Your task to perform on an android device: open sync settings in chrome Image 0: 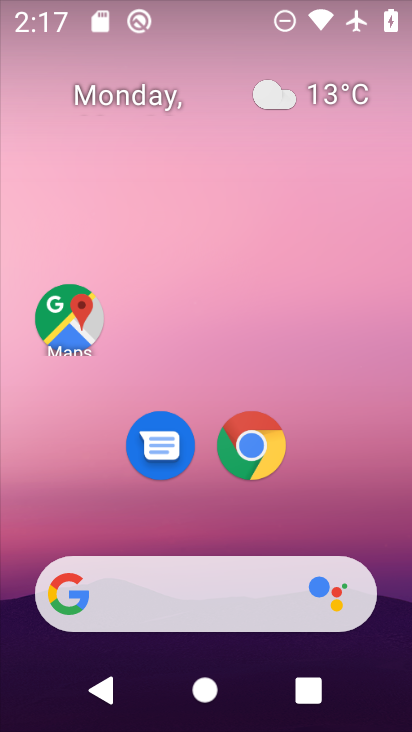
Step 0: drag from (389, 624) to (322, 38)
Your task to perform on an android device: open sync settings in chrome Image 1: 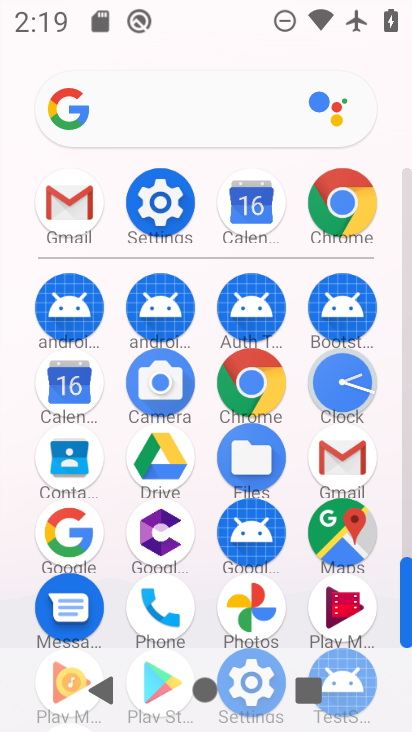
Step 1: click (270, 357)
Your task to perform on an android device: open sync settings in chrome Image 2: 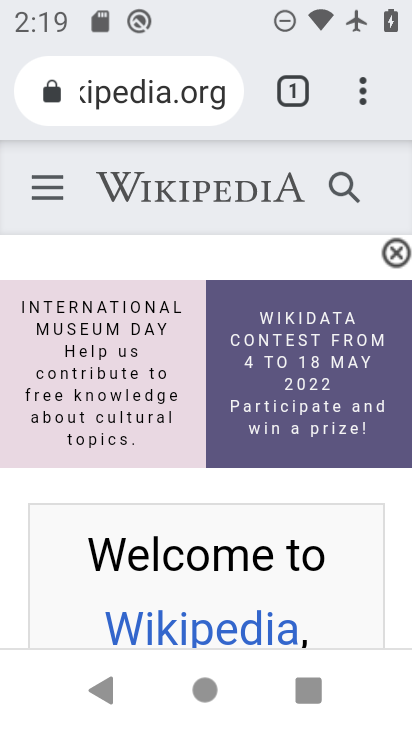
Step 2: press back button
Your task to perform on an android device: open sync settings in chrome Image 3: 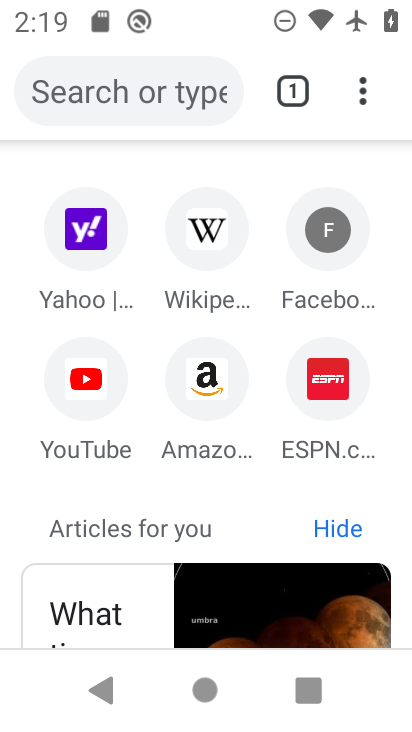
Step 3: click (363, 85)
Your task to perform on an android device: open sync settings in chrome Image 4: 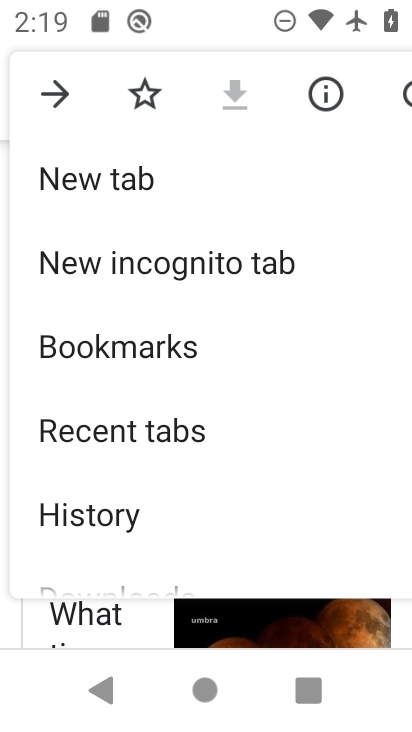
Step 4: drag from (153, 569) to (254, 134)
Your task to perform on an android device: open sync settings in chrome Image 5: 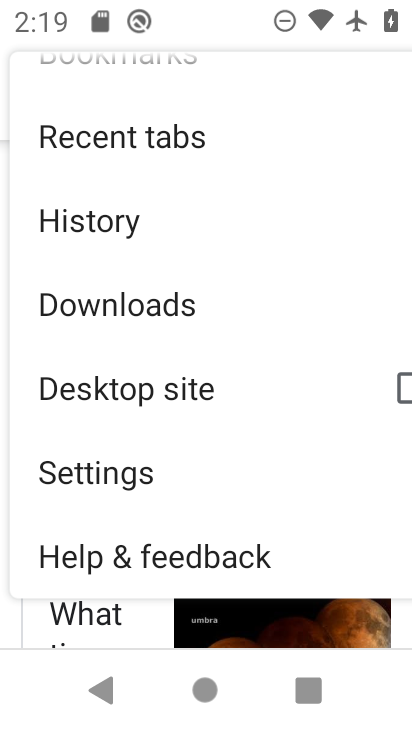
Step 5: click (165, 477)
Your task to perform on an android device: open sync settings in chrome Image 6: 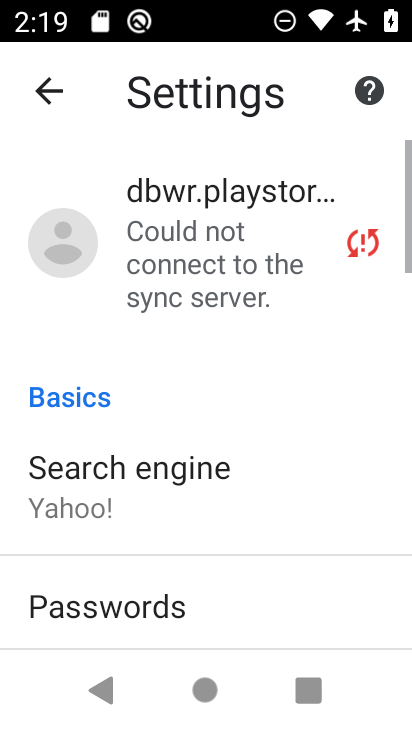
Step 6: drag from (134, 619) to (216, 163)
Your task to perform on an android device: open sync settings in chrome Image 7: 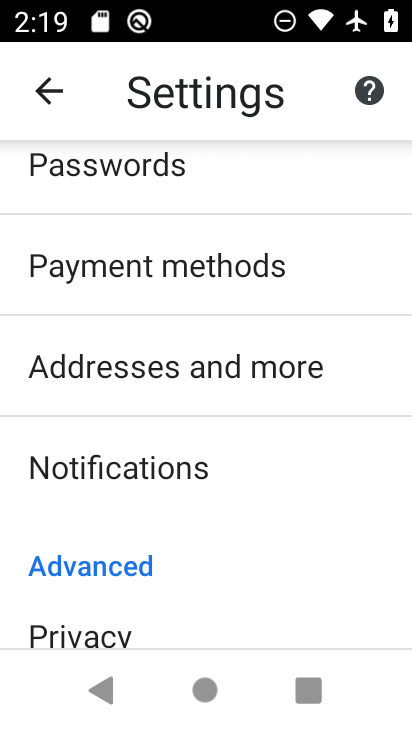
Step 7: drag from (173, 589) to (265, 142)
Your task to perform on an android device: open sync settings in chrome Image 8: 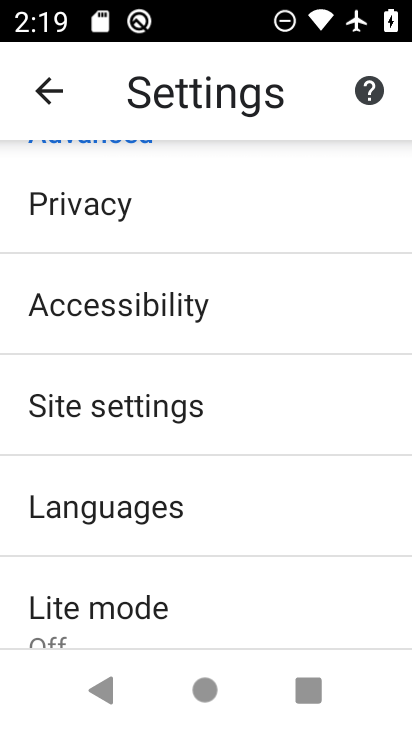
Step 8: click (186, 441)
Your task to perform on an android device: open sync settings in chrome Image 9: 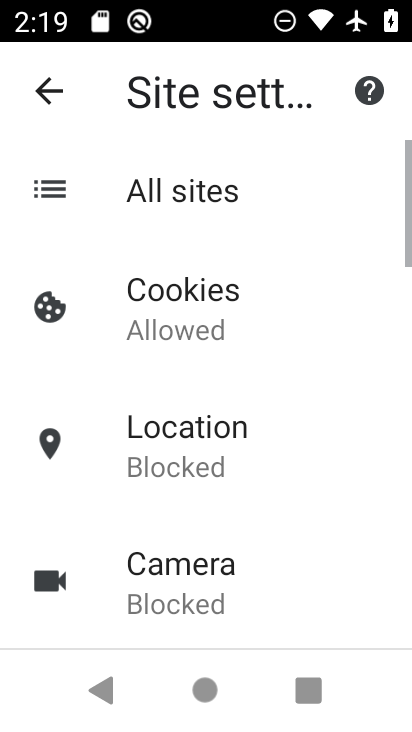
Step 9: drag from (212, 606) to (302, 132)
Your task to perform on an android device: open sync settings in chrome Image 10: 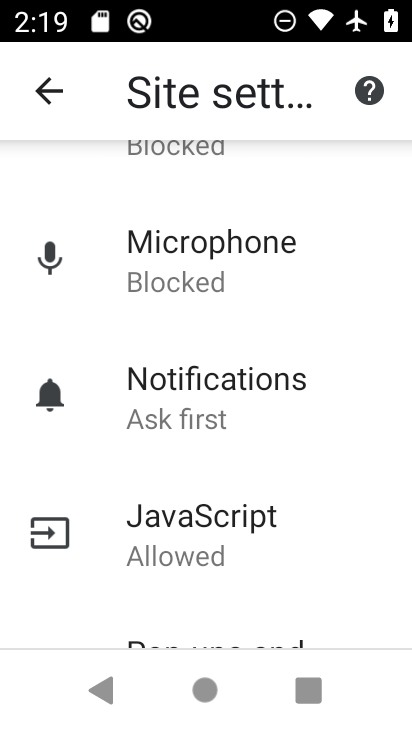
Step 10: drag from (225, 587) to (294, 127)
Your task to perform on an android device: open sync settings in chrome Image 11: 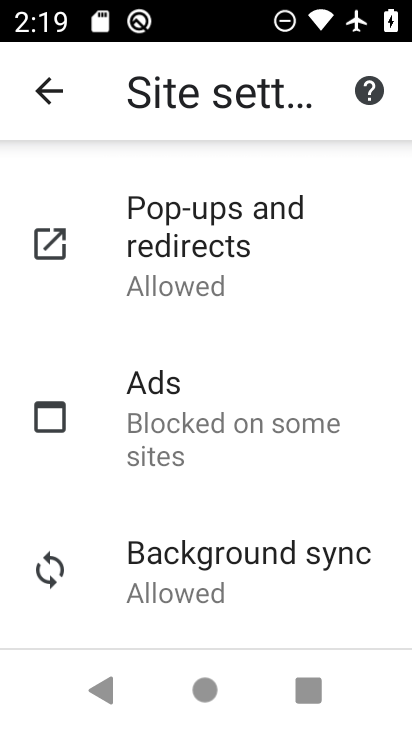
Step 11: click (217, 564)
Your task to perform on an android device: open sync settings in chrome Image 12: 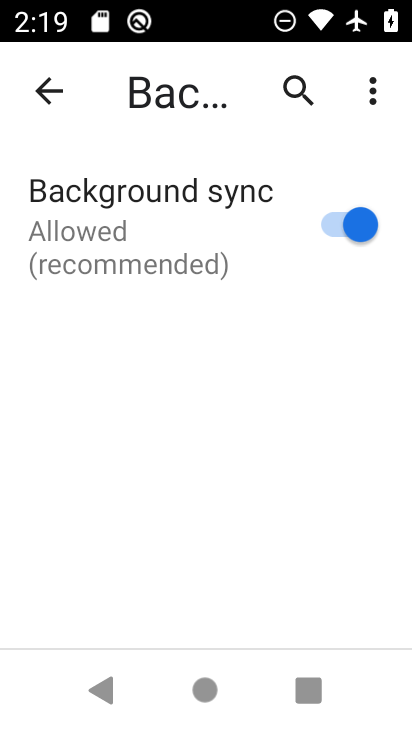
Step 12: task complete